Your task to perform on an android device: Go to notification settings Image 0: 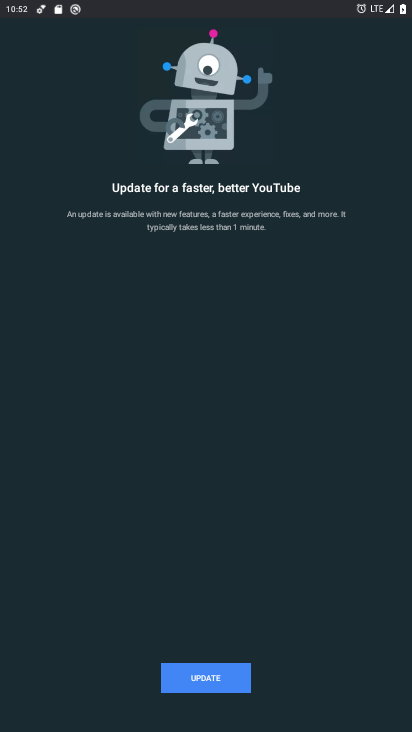
Step 0: press home button
Your task to perform on an android device: Go to notification settings Image 1: 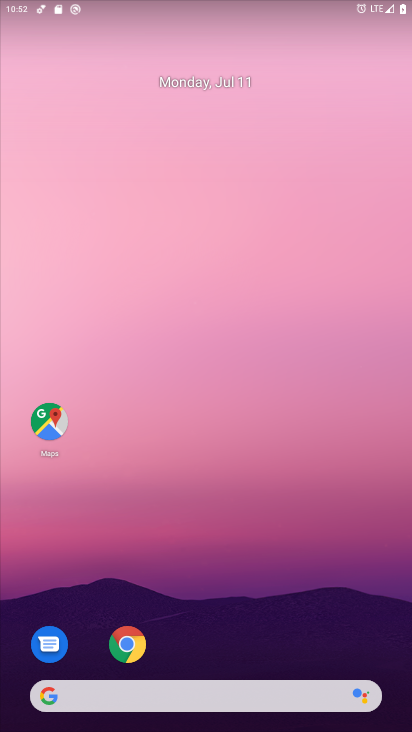
Step 1: drag from (250, 591) to (220, 188)
Your task to perform on an android device: Go to notification settings Image 2: 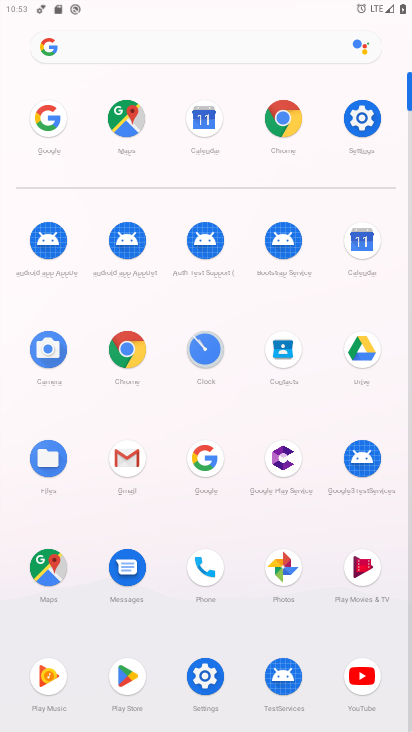
Step 2: click (368, 116)
Your task to perform on an android device: Go to notification settings Image 3: 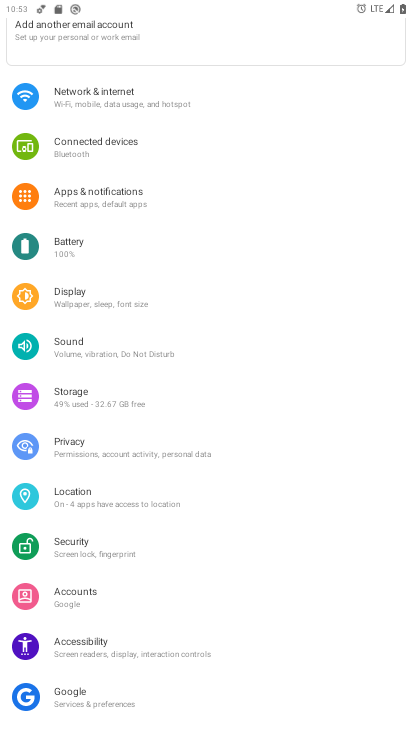
Step 3: click (160, 187)
Your task to perform on an android device: Go to notification settings Image 4: 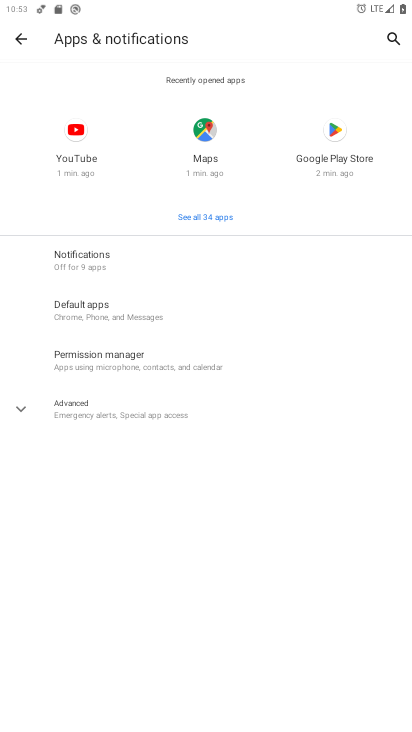
Step 4: click (251, 262)
Your task to perform on an android device: Go to notification settings Image 5: 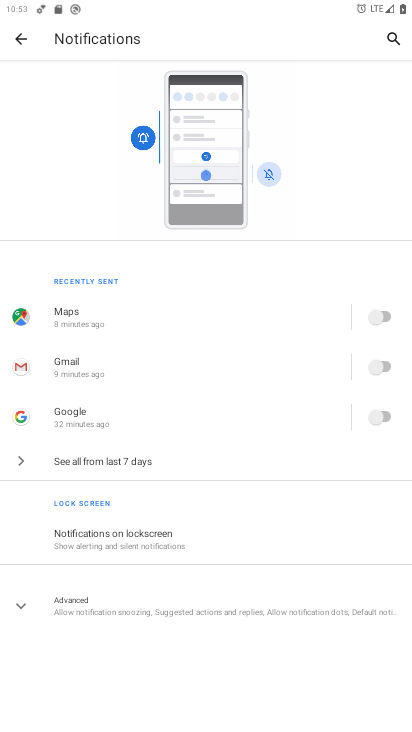
Step 5: task complete